Your task to perform on an android device: Open wifi settings Image 0: 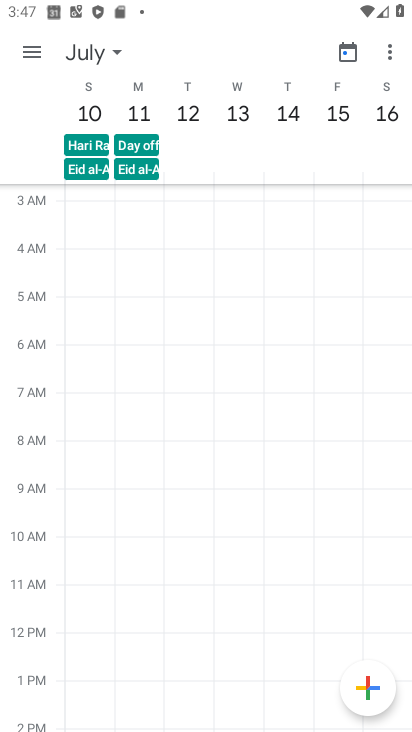
Step 0: press home button
Your task to perform on an android device: Open wifi settings Image 1: 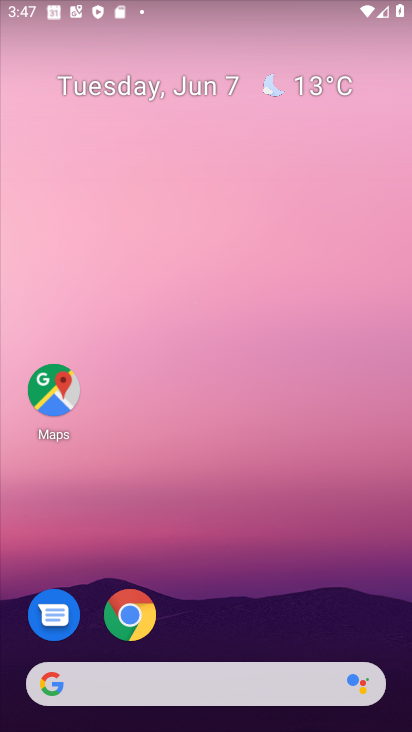
Step 1: drag from (209, 663) to (261, 15)
Your task to perform on an android device: Open wifi settings Image 2: 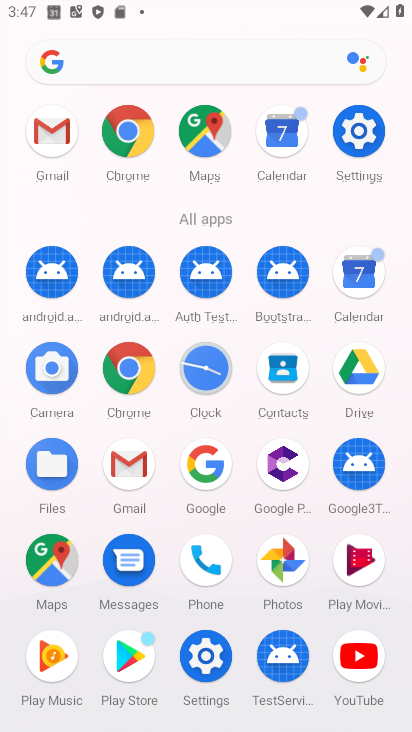
Step 2: click (368, 124)
Your task to perform on an android device: Open wifi settings Image 3: 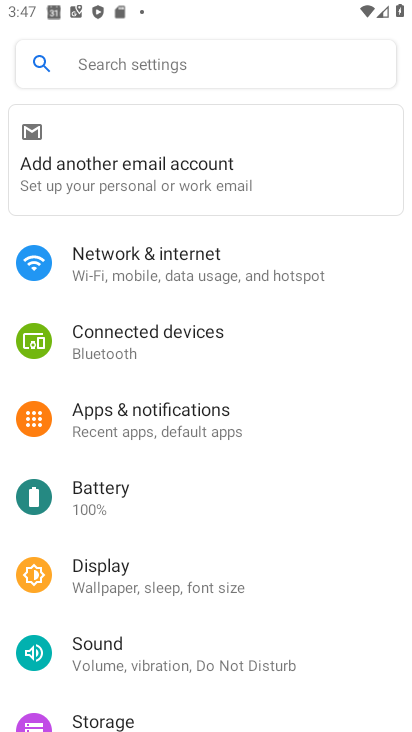
Step 3: click (126, 272)
Your task to perform on an android device: Open wifi settings Image 4: 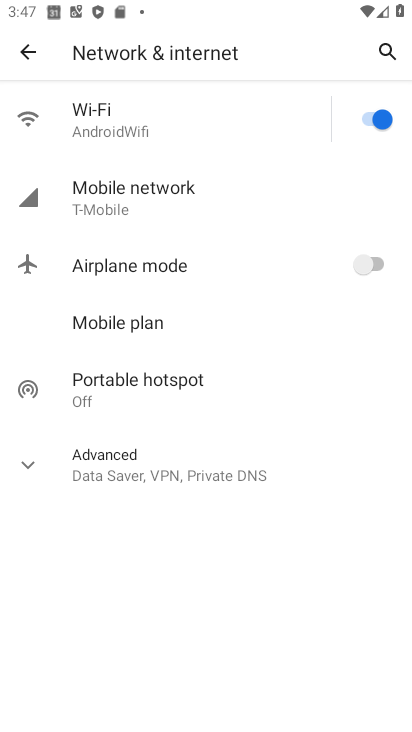
Step 4: click (131, 130)
Your task to perform on an android device: Open wifi settings Image 5: 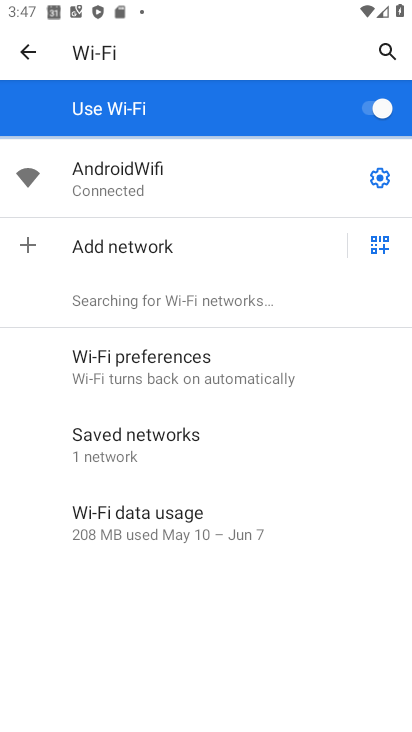
Step 5: task complete